Your task to perform on an android device: Open calendar and show me the second week of next month Image 0: 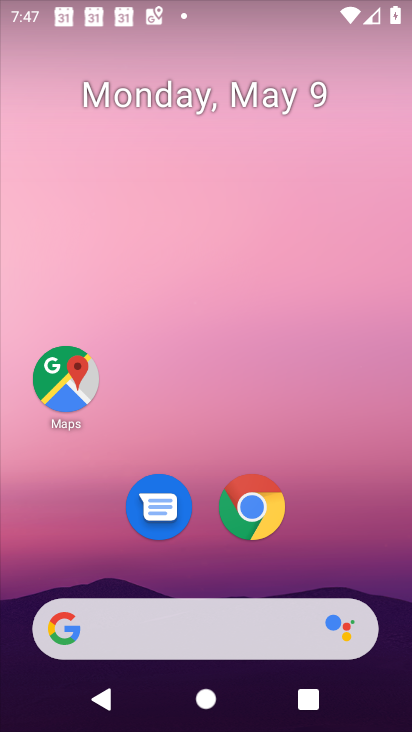
Step 0: drag from (283, 674) to (299, 126)
Your task to perform on an android device: Open calendar and show me the second week of next month Image 1: 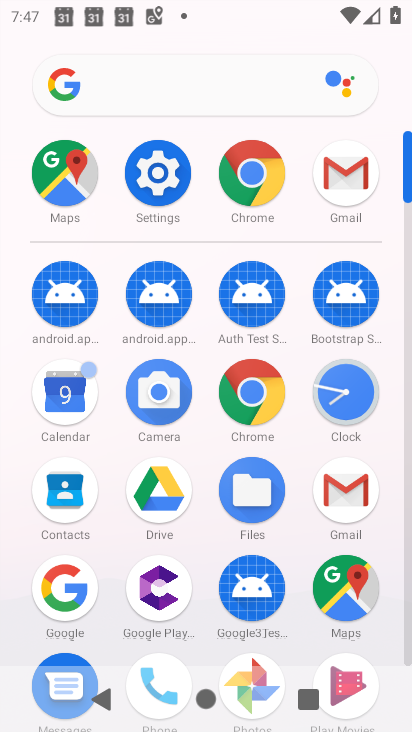
Step 1: click (60, 379)
Your task to perform on an android device: Open calendar and show me the second week of next month Image 2: 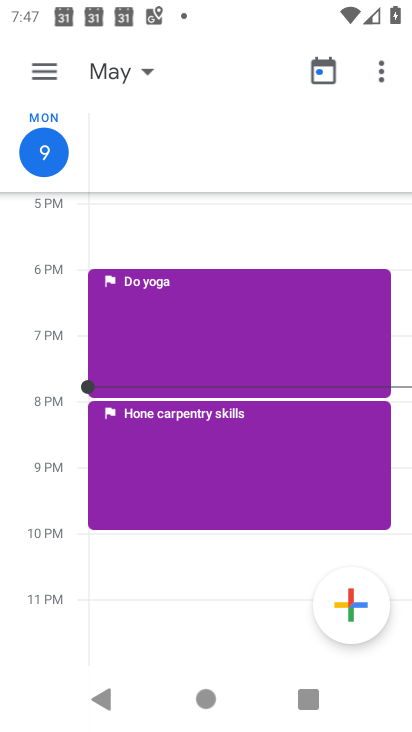
Step 2: click (38, 63)
Your task to perform on an android device: Open calendar and show me the second week of next month Image 3: 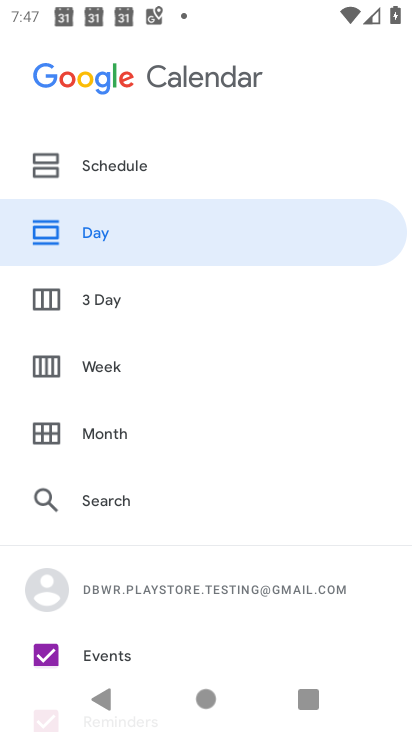
Step 3: click (149, 427)
Your task to perform on an android device: Open calendar and show me the second week of next month Image 4: 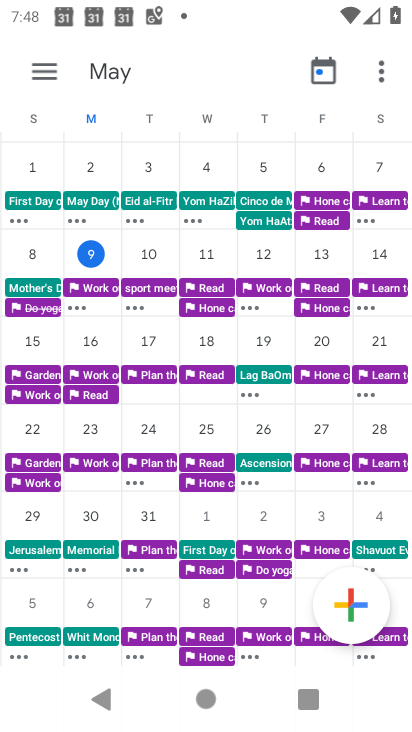
Step 4: drag from (384, 416) to (0, 518)
Your task to perform on an android device: Open calendar and show me the second week of next month Image 5: 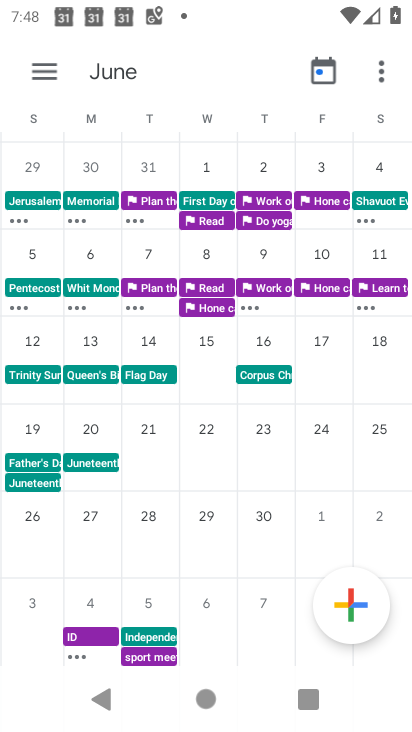
Step 5: click (90, 277)
Your task to perform on an android device: Open calendar and show me the second week of next month Image 6: 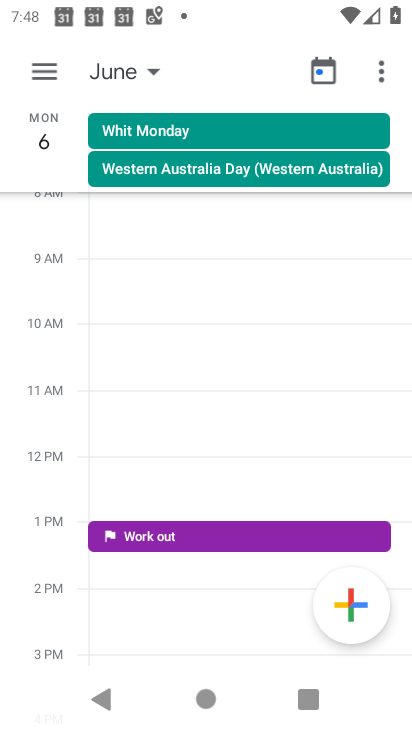
Step 6: task complete